Your task to perform on an android device: turn off picture-in-picture Image 0: 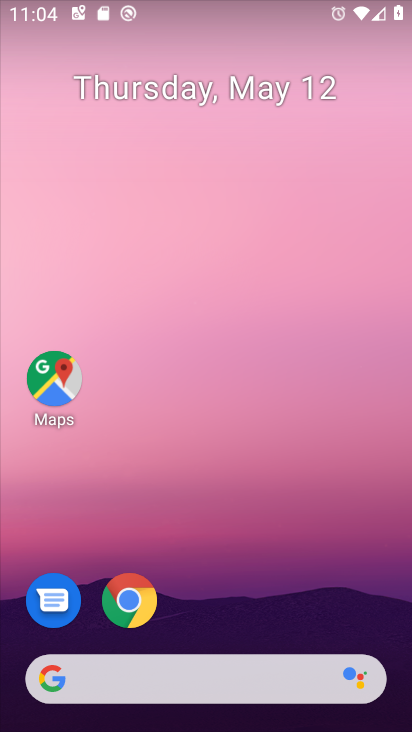
Step 0: drag from (201, 600) to (93, 180)
Your task to perform on an android device: turn off picture-in-picture Image 1: 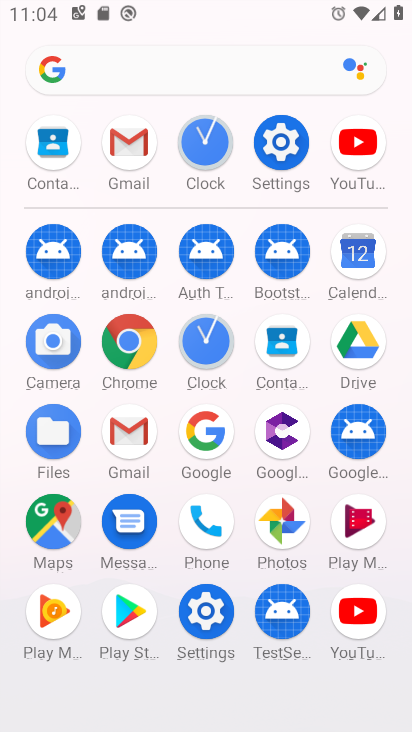
Step 1: click (284, 143)
Your task to perform on an android device: turn off picture-in-picture Image 2: 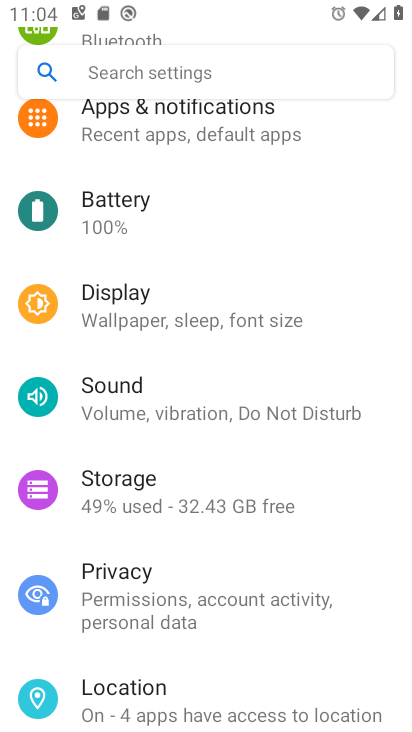
Step 2: click (283, 143)
Your task to perform on an android device: turn off picture-in-picture Image 3: 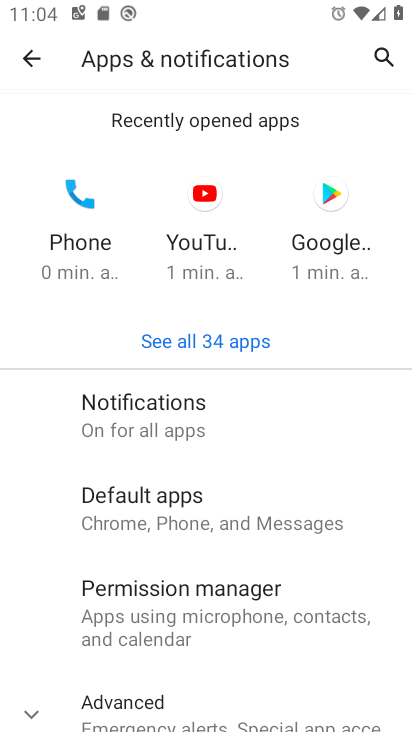
Step 3: click (157, 705)
Your task to perform on an android device: turn off picture-in-picture Image 4: 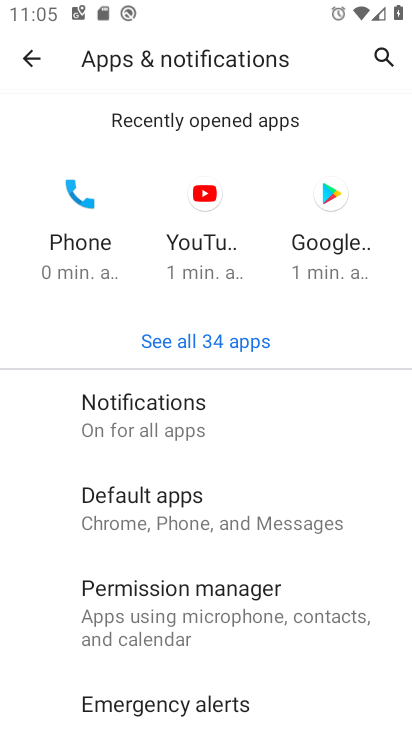
Step 4: drag from (193, 652) to (146, 229)
Your task to perform on an android device: turn off picture-in-picture Image 5: 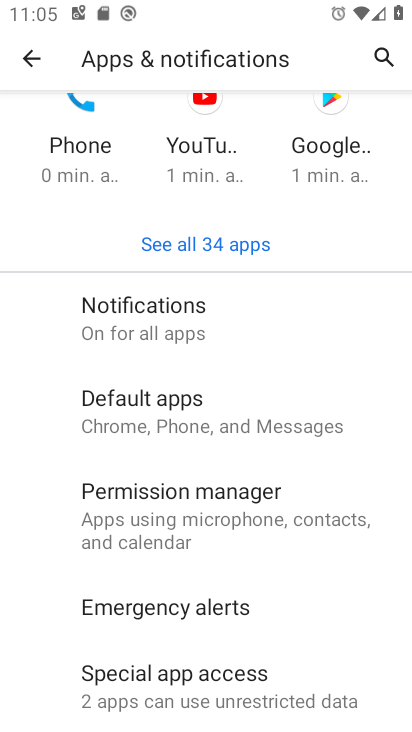
Step 5: click (208, 692)
Your task to perform on an android device: turn off picture-in-picture Image 6: 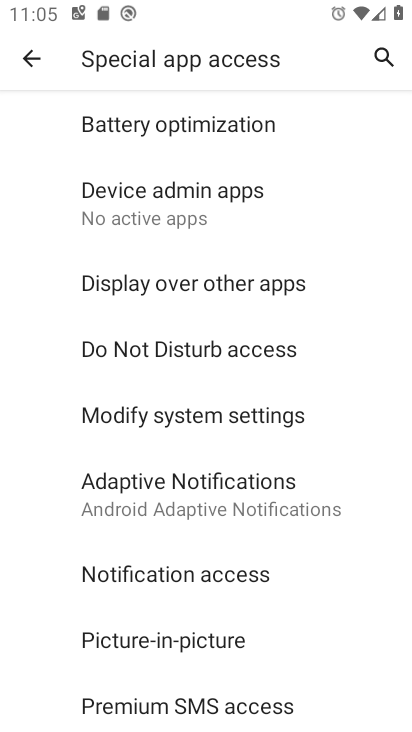
Step 6: click (204, 642)
Your task to perform on an android device: turn off picture-in-picture Image 7: 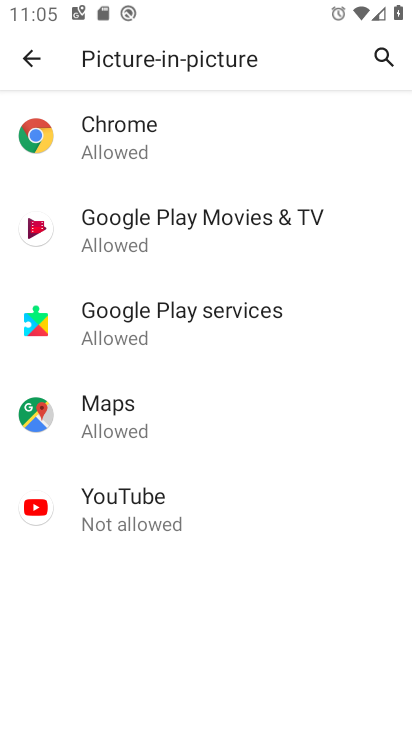
Step 7: click (148, 233)
Your task to perform on an android device: turn off picture-in-picture Image 8: 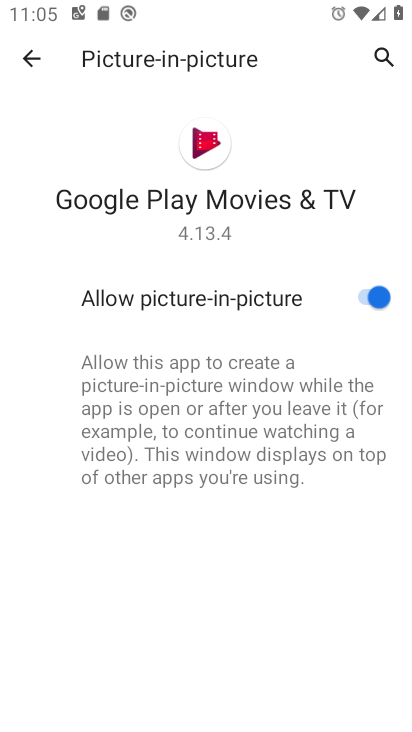
Step 8: click (384, 298)
Your task to perform on an android device: turn off picture-in-picture Image 9: 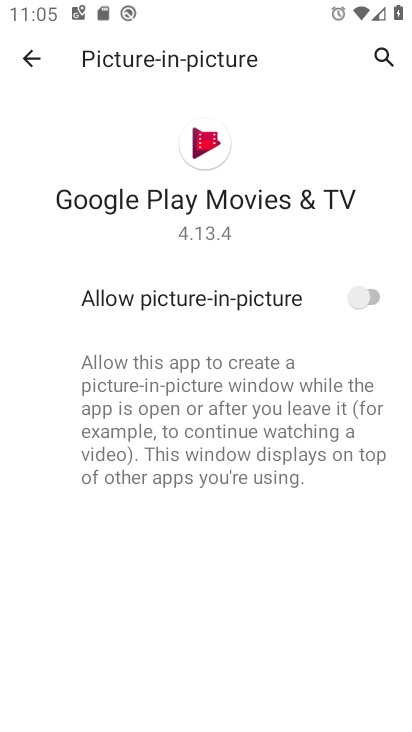
Step 9: task complete